Your task to perform on an android device: choose inbox layout in the gmail app Image 0: 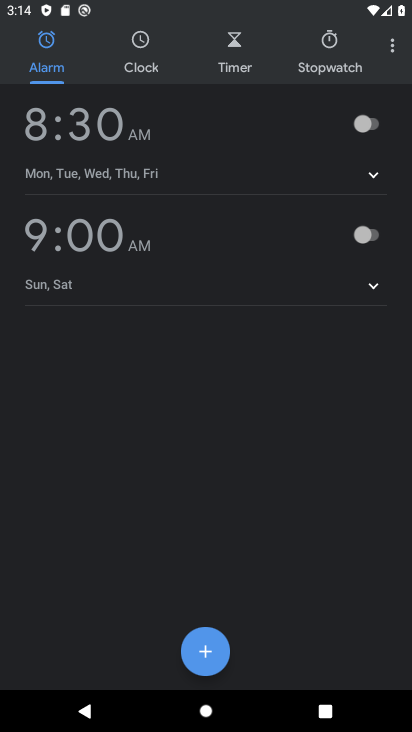
Step 0: press home button
Your task to perform on an android device: choose inbox layout in the gmail app Image 1: 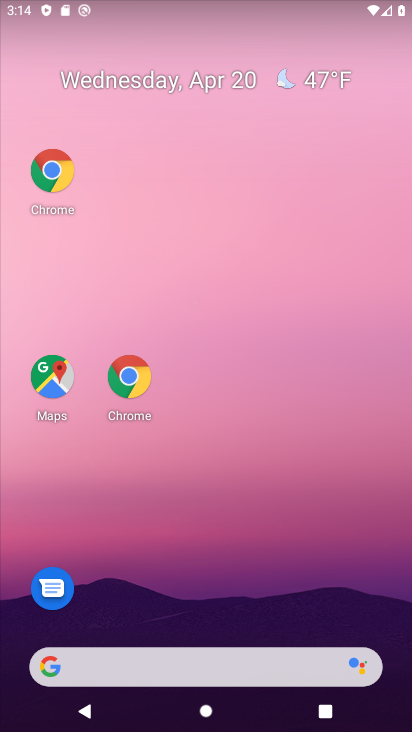
Step 1: drag from (238, 587) to (252, 29)
Your task to perform on an android device: choose inbox layout in the gmail app Image 2: 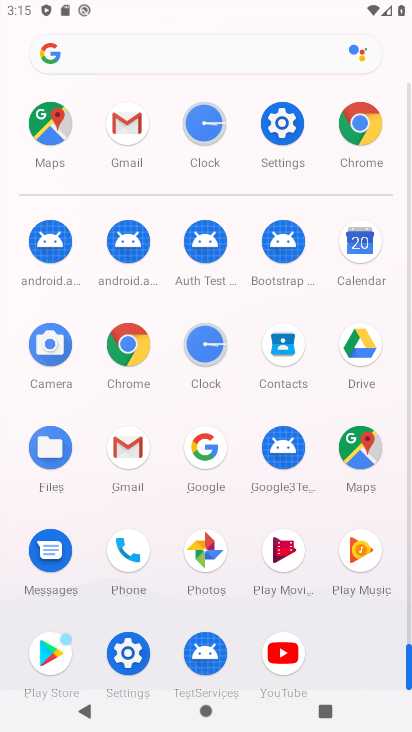
Step 2: click (119, 445)
Your task to perform on an android device: choose inbox layout in the gmail app Image 3: 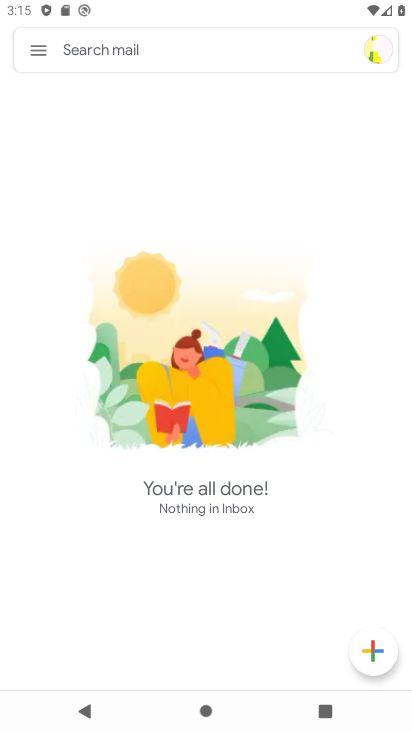
Step 3: click (40, 50)
Your task to perform on an android device: choose inbox layout in the gmail app Image 4: 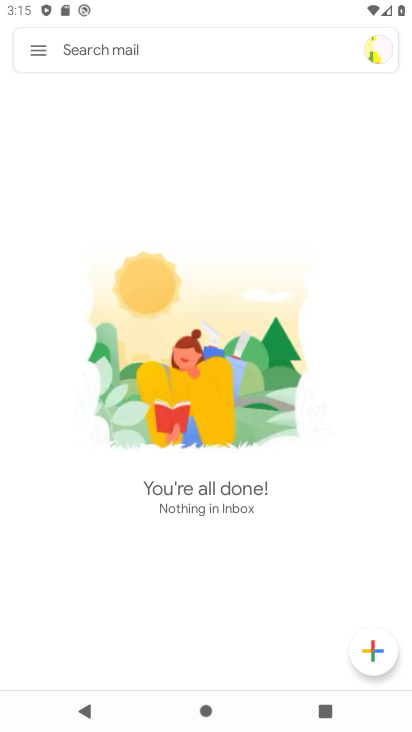
Step 4: click (40, 50)
Your task to perform on an android device: choose inbox layout in the gmail app Image 5: 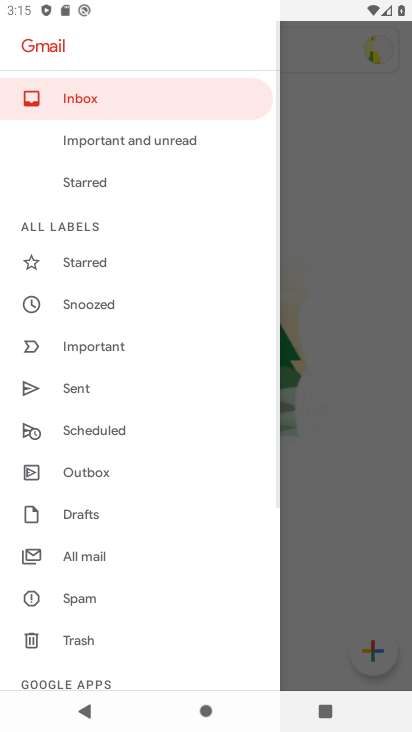
Step 5: drag from (186, 546) to (152, 115)
Your task to perform on an android device: choose inbox layout in the gmail app Image 6: 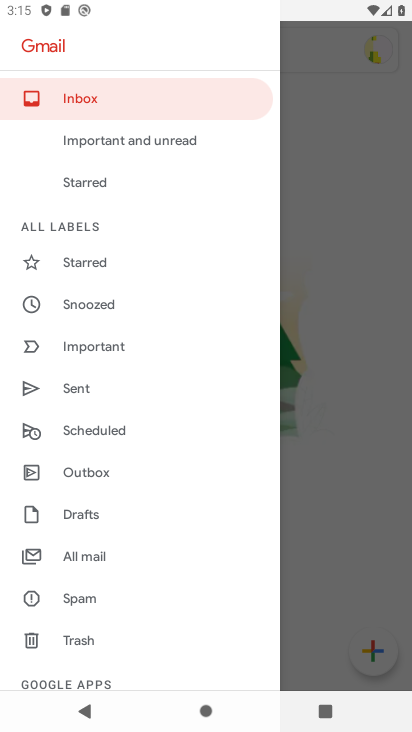
Step 6: drag from (97, 650) to (64, 170)
Your task to perform on an android device: choose inbox layout in the gmail app Image 7: 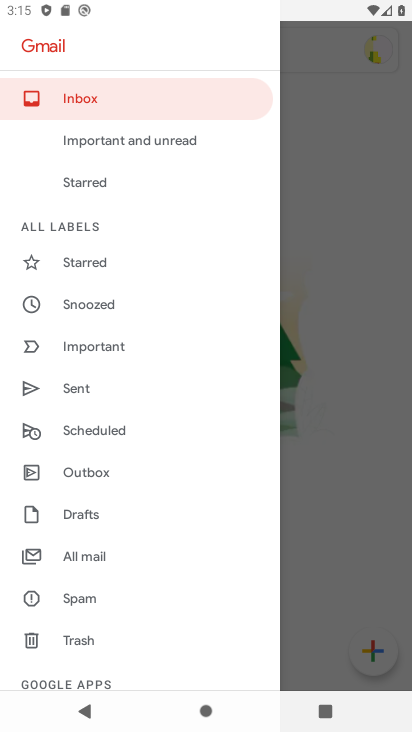
Step 7: drag from (162, 564) to (142, 56)
Your task to perform on an android device: choose inbox layout in the gmail app Image 8: 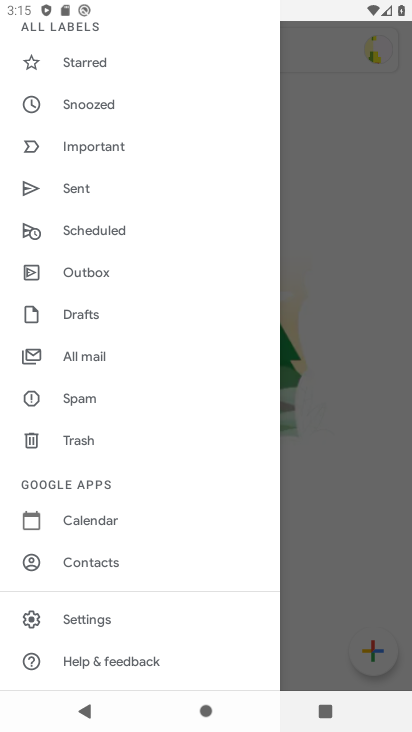
Step 8: click (135, 627)
Your task to perform on an android device: choose inbox layout in the gmail app Image 9: 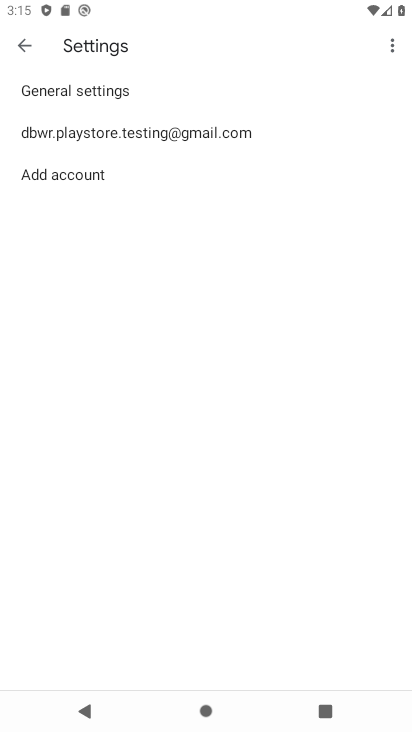
Step 9: click (136, 137)
Your task to perform on an android device: choose inbox layout in the gmail app Image 10: 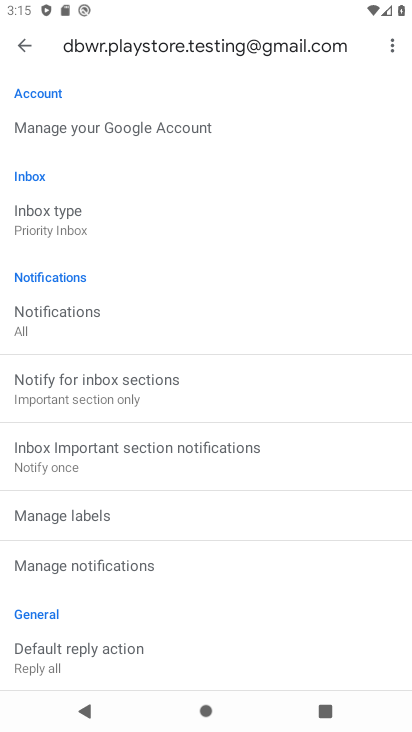
Step 10: drag from (180, 651) to (196, 128)
Your task to perform on an android device: choose inbox layout in the gmail app Image 11: 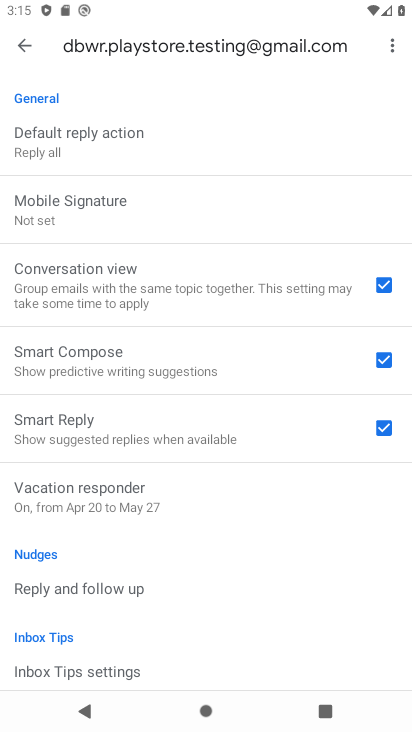
Step 11: drag from (176, 664) to (206, 113)
Your task to perform on an android device: choose inbox layout in the gmail app Image 12: 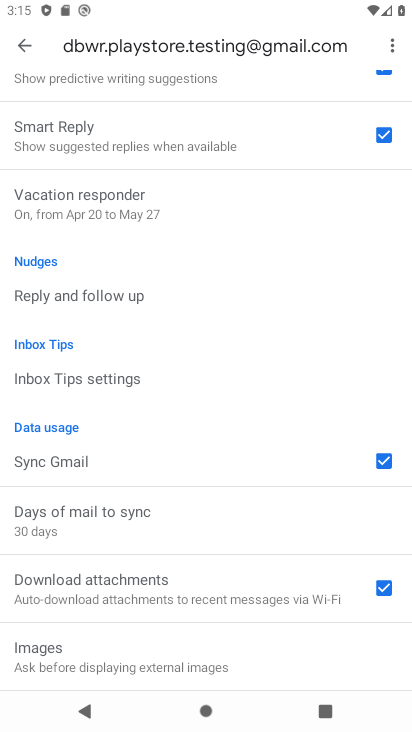
Step 12: drag from (215, 201) to (138, 644)
Your task to perform on an android device: choose inbox layout in the gmail app Image 13: 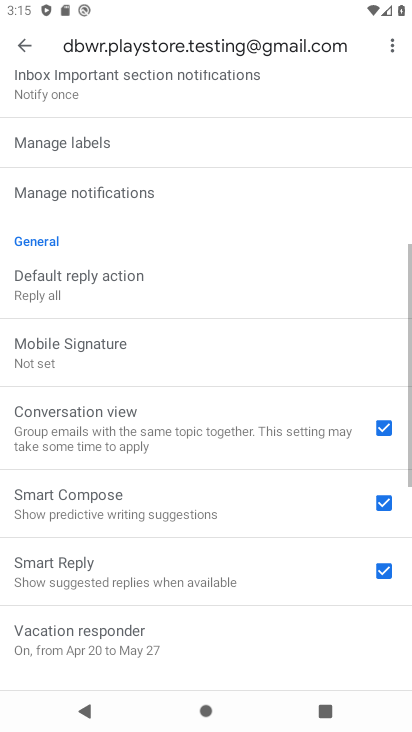
Step 13: drag from (124, 224) to (150, 500)
Your task to perform on an android device: choose inbox layout in the gmail app Image 14: 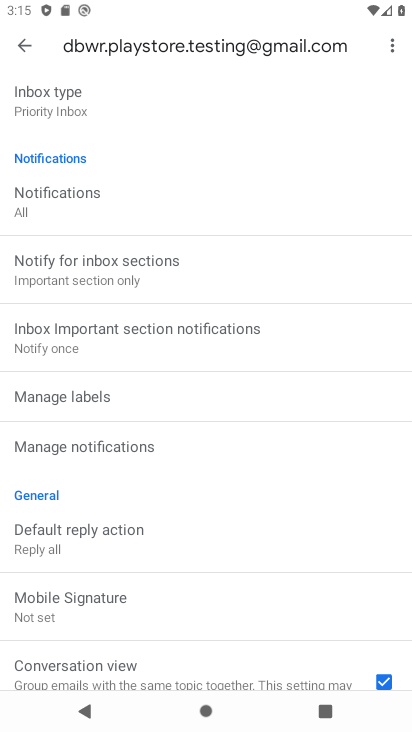
Step 14: click (101, 106)
Your task to perform on an android device: choose inbox layout in the gmail app Image 15: 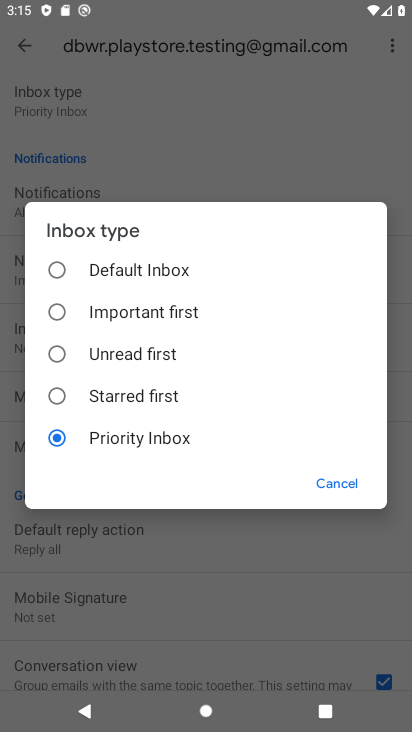
Step 15: click (123, 317)
Your task to perform on an android device: choose inbox layout in the gmail app Image 16: 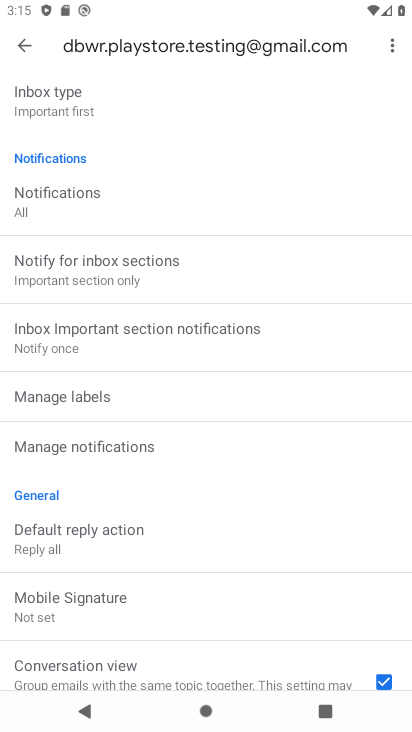
Step 16: task complete